Your task to perform on an android device: Open Youtube and go to the subscriptions tab Image 0: 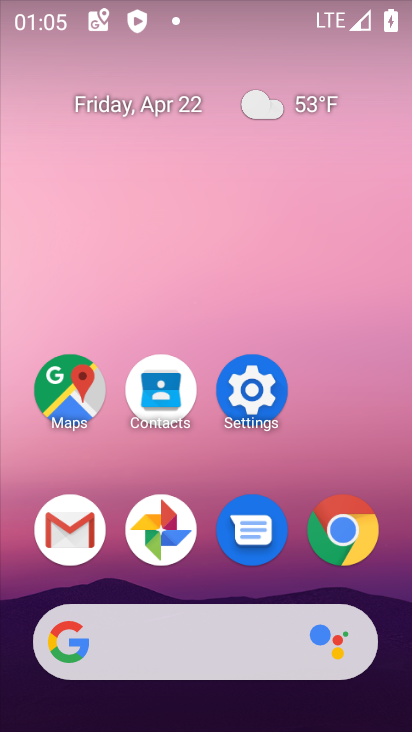
Step 0: drag from (223, 693) to (49, 290)
Your task to perform on an android device: Open Youtube and go to the subscriptions tab Image 1: 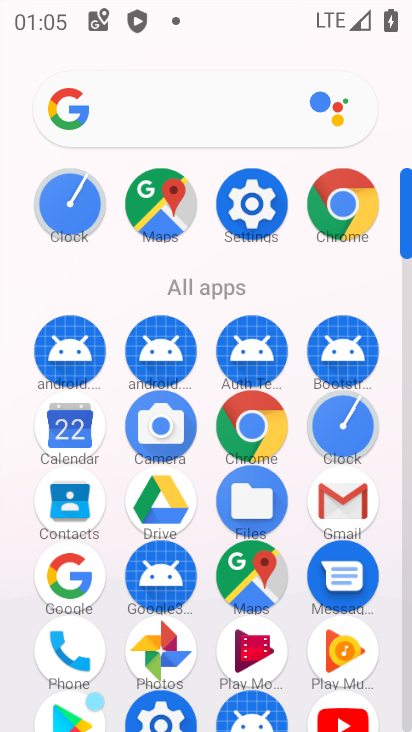
Step 1: click (335, 718)
Your task to perform on an android device: Open Youtube and go to the subscriptions tab Image 2: 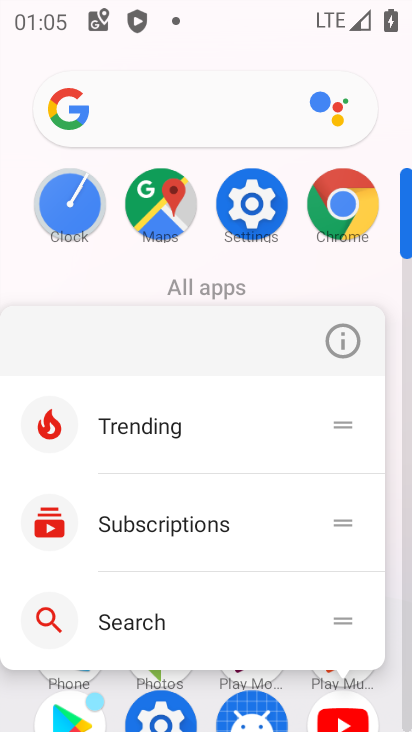
Step 2: click (45, 270)
Your task to perform on an android device: Open Youtube and go to the subscriptions tab Image 3: 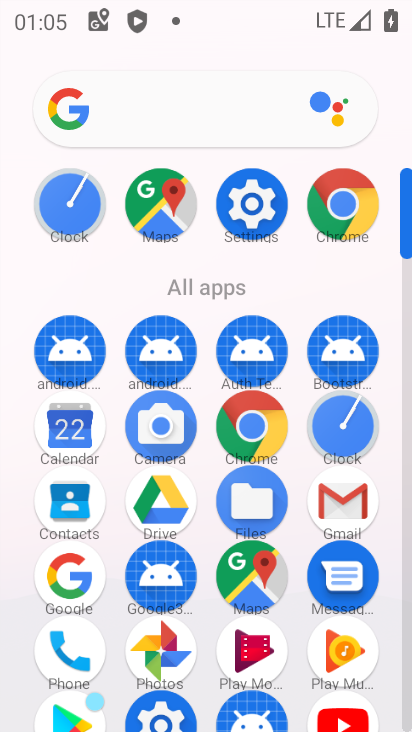
Step 3: click (334, 706)
Your task to perform on an android device: Open Youtube and go to the subscriptions tab Image 4: 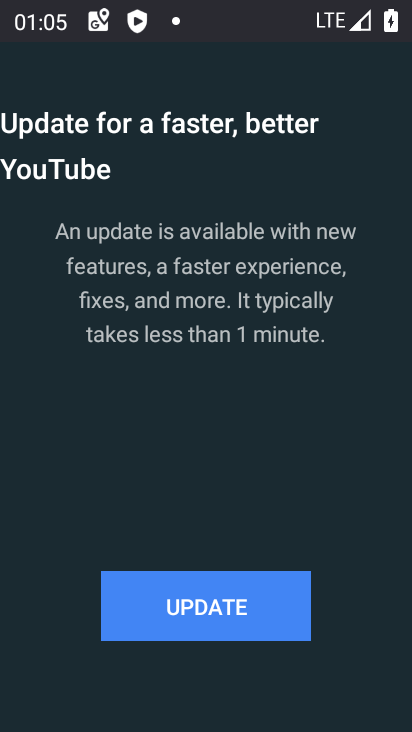
Step 4: click (218, 618)
Your task to perform on an android device: Open Youtube and go to the subscriptions tab Image 5: 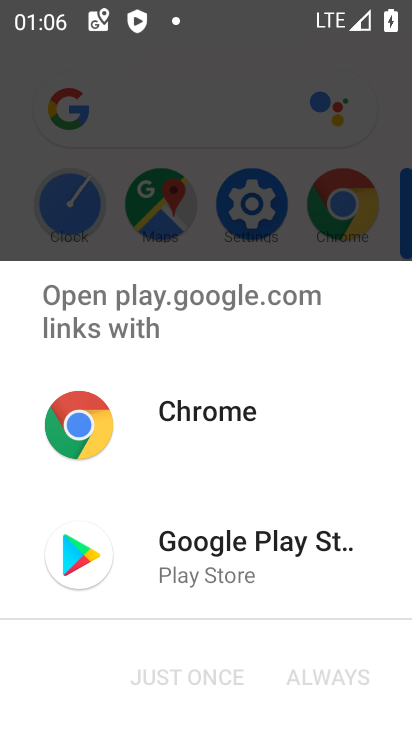
Step 5: click (197, 541)
Your task to perform on an android device: Open Youtube and go to the subscriptions tab Image 6: 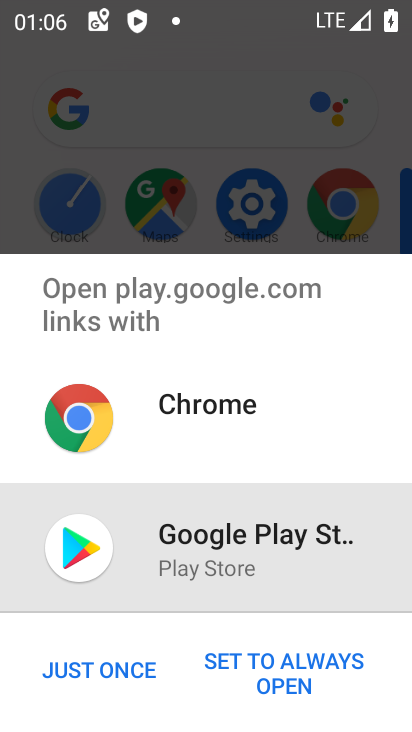
Step 6: click (114, 657)
Your task to perform on an android device: Open Youtube and go to the subscriptions tab Image 7: 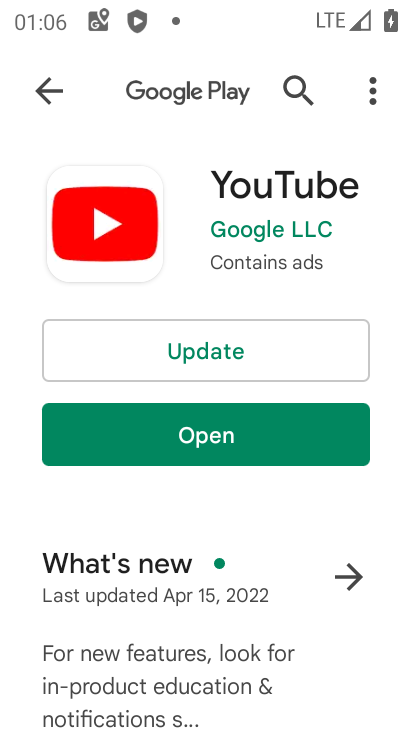
Step 7: click (205, 353)
Your task to perform on an android device: Open Youtube and go to the subscriptions tab Image 8: 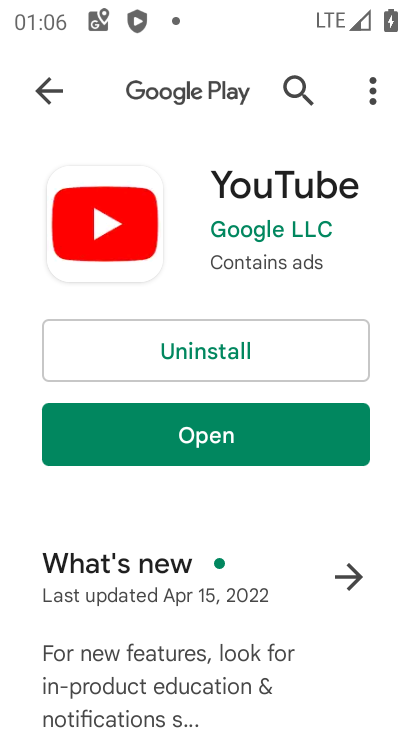
Step 8: click (195, 447)
Your task to perform on an android device: Open Youtube and go to the subscriptions tab Image 9: 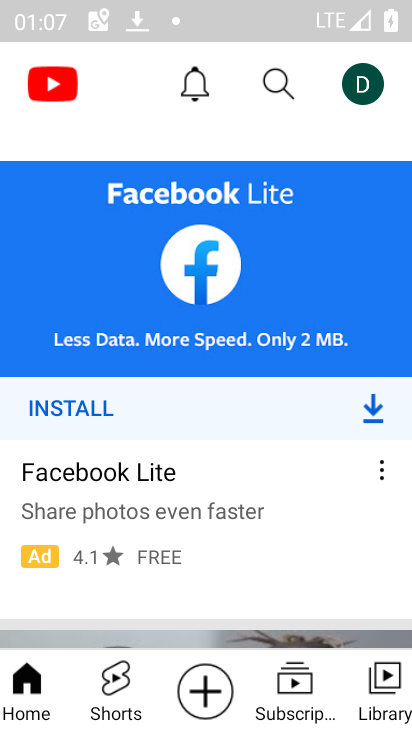
Step 9: click (295, 689)
Your task to perform on an android device: Open Youtube and go to the subscriptions tab Image 10: 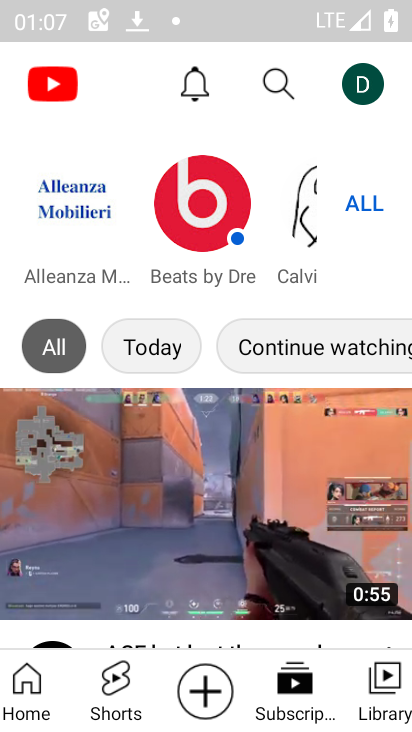
Step 10: task complete